Your task to perform on an android device: change notification settings in the gmail app Image 0: 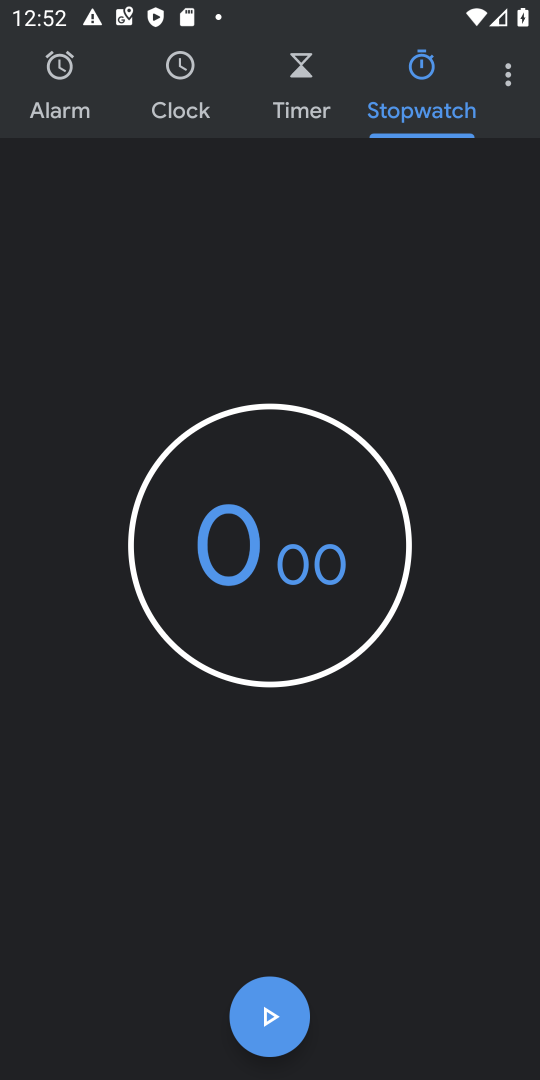
Step 0: press home button
Your task to perform on an android device: change notification settings in the gmail app Image 1: 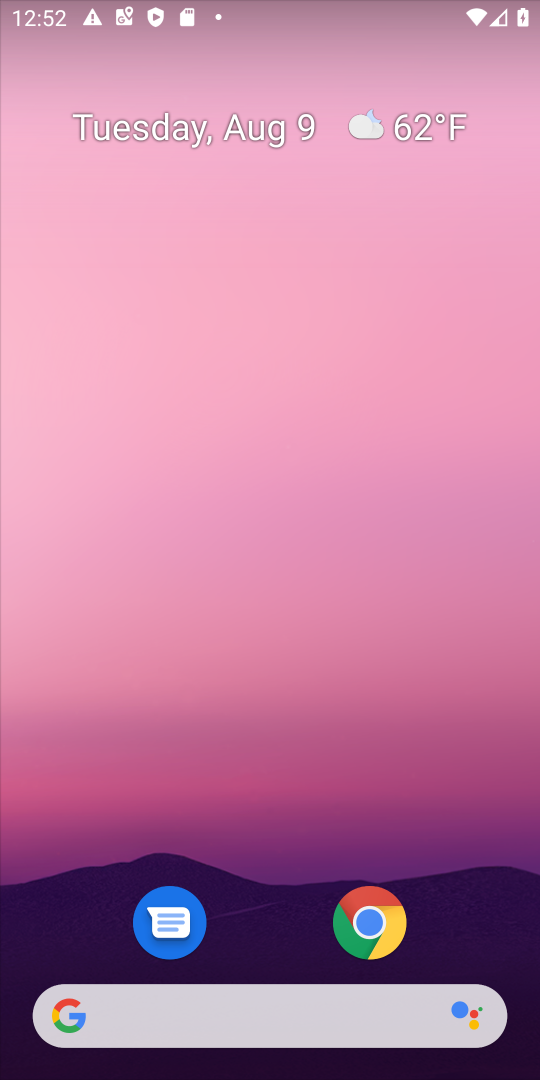
Step 1: drag from (311, 956) to (361, 65)
Your task to perform on an android device: change notification settings in the gmail app Image 2: 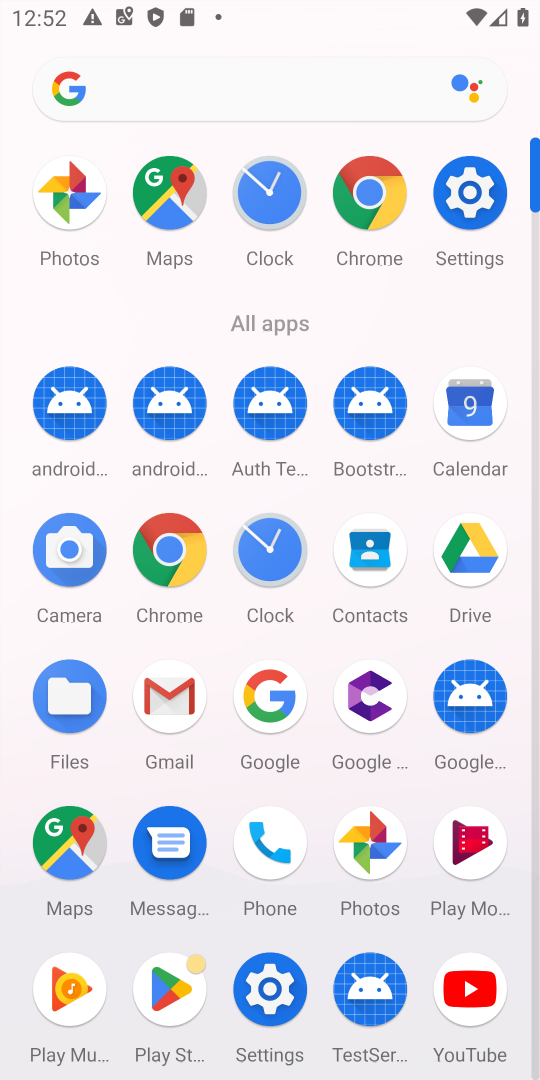
Step 2: click (154, 700)
Your task to perform on an android device: change notification settings in the gmail app Image 3: 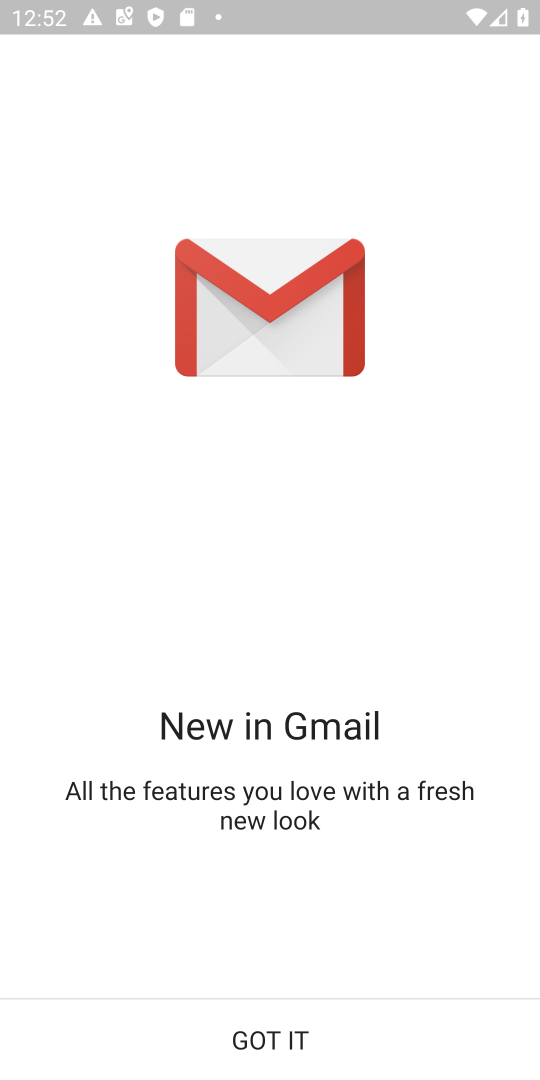
Step 3: click (329, 1036)
Your task to perform on an android device: change notification settings in the gmail app Image 4: 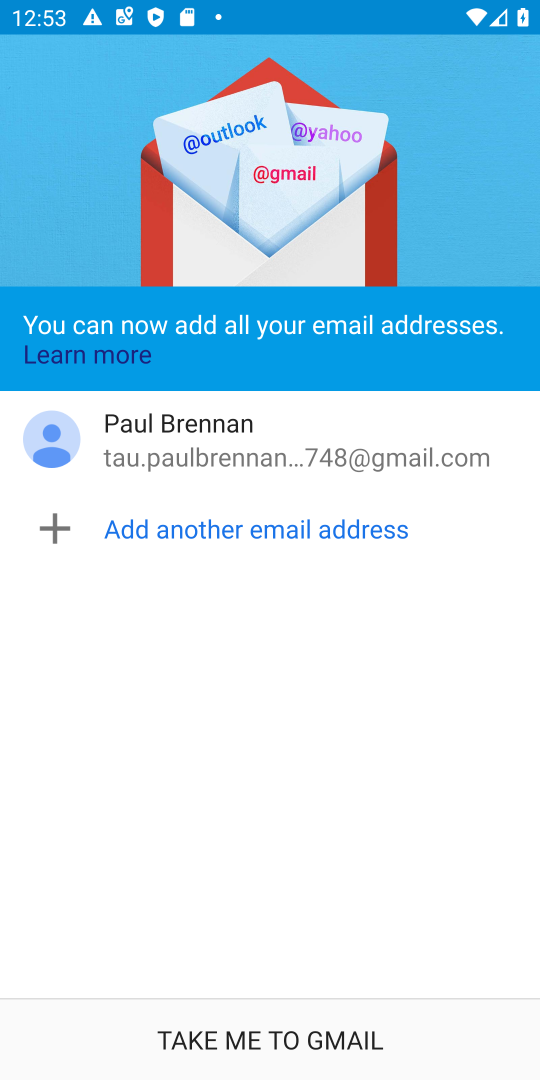
Step 4: click (318, 1002)
Your task to perform on an android device: change notification settings in the gmail app Image 5: 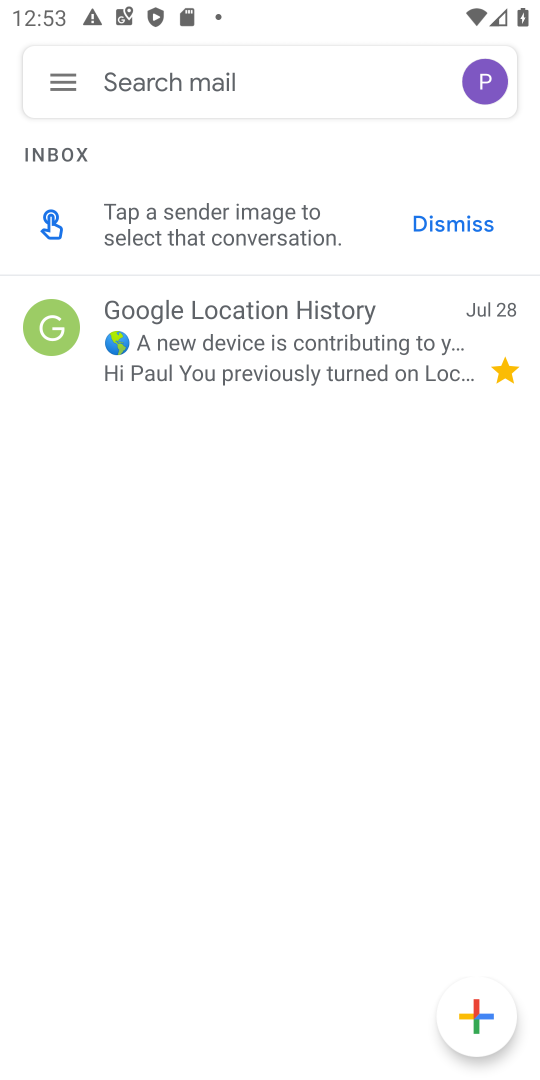
Step 5: click (50, 65)
Your task to perform on an android device: change notification settings in the gmail app Image 6: 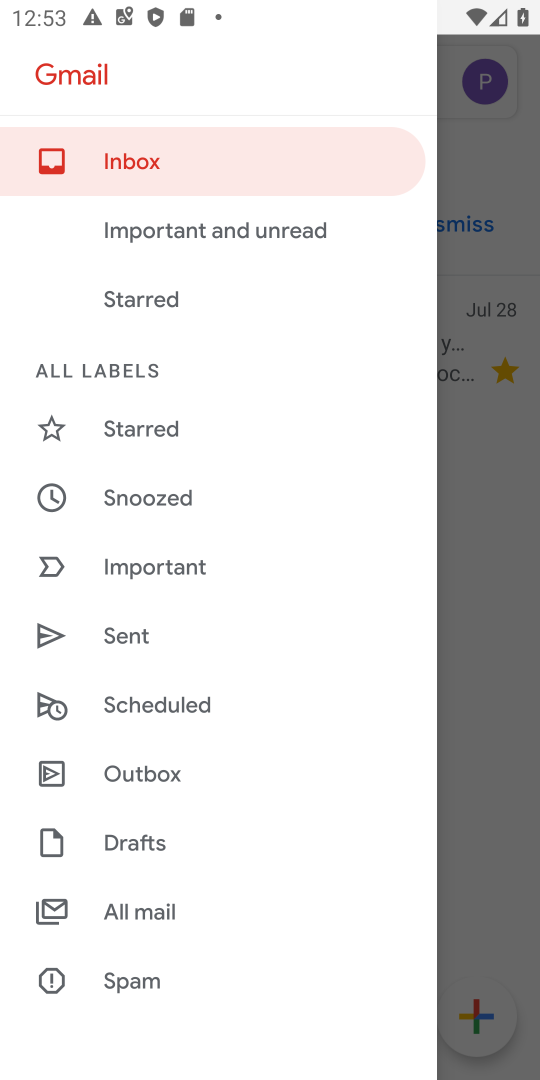
Step 6: drag from (210, 504) to (357, 49)
Your task to perform on an android device: change notification settings in the gmail app Image 7: 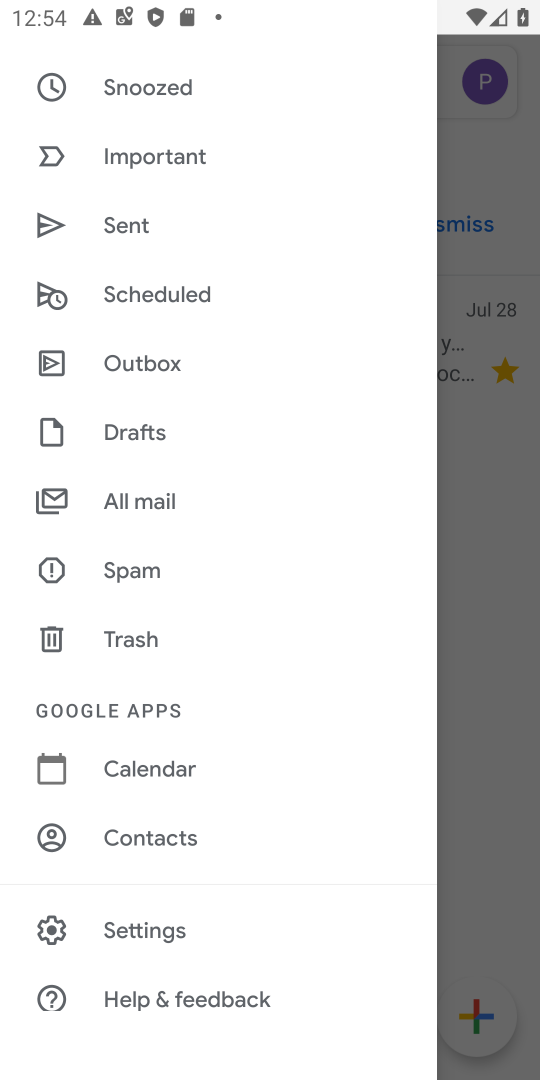
Step 7: click (162, 918)
Your task to perform on an android device: change notification settings in the gmail app Image 8: 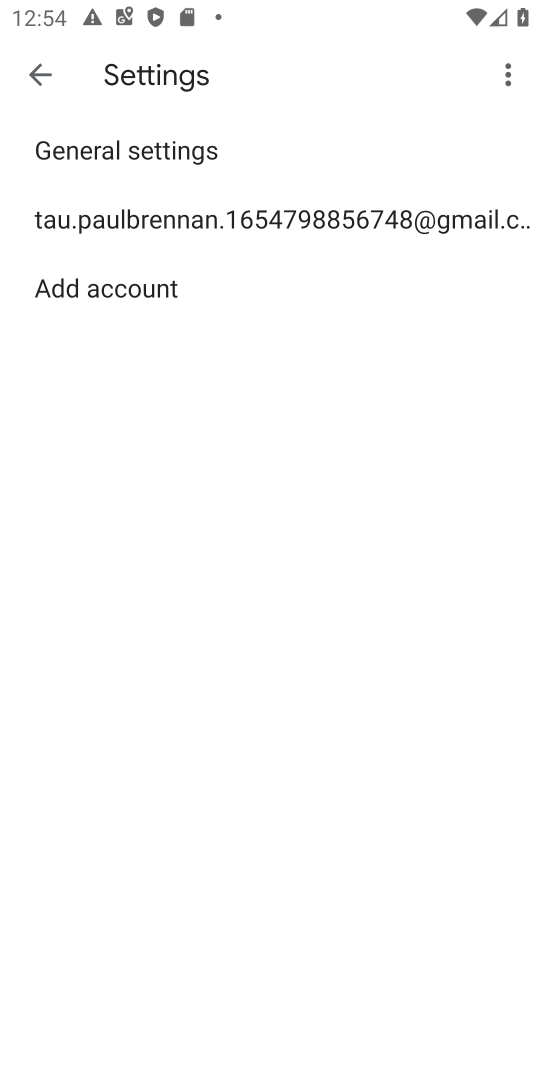
Step 8: click (141, 220)
Your task to perform on an android device: change notification settings in the gmail app Image 9: 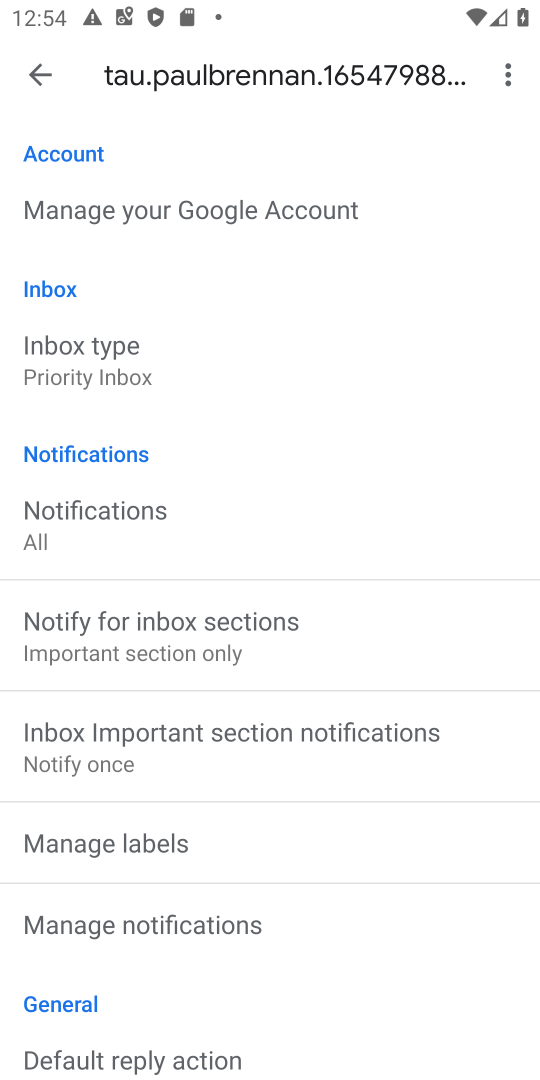
Step 9: click (38, 87)
Your task to perform on an android device: change notification settings in the gmail app Image 10: 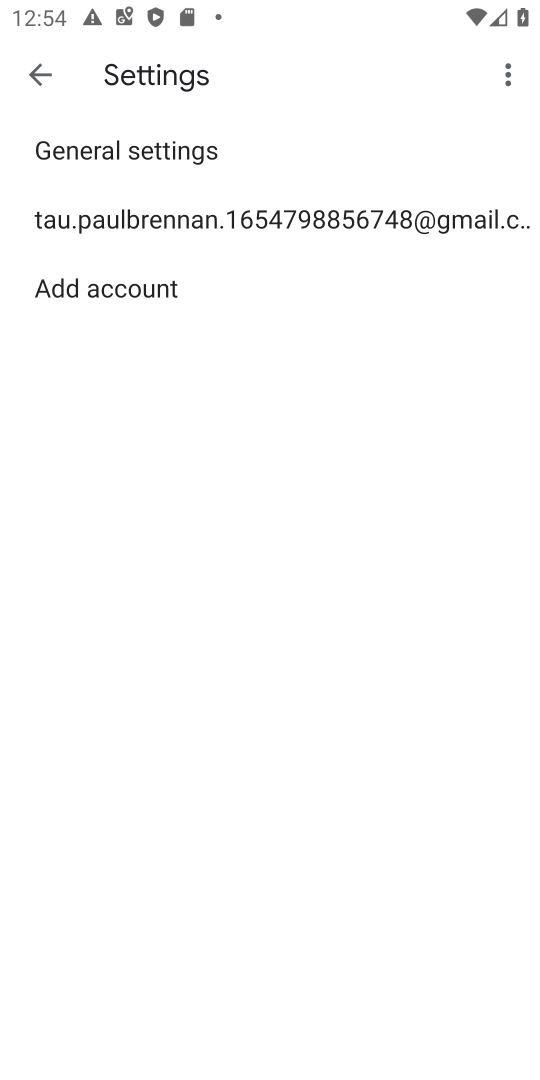
Step 10: click (57, 163)
Your task to perform on an android device: change notification settings in the gmail app Image 11: 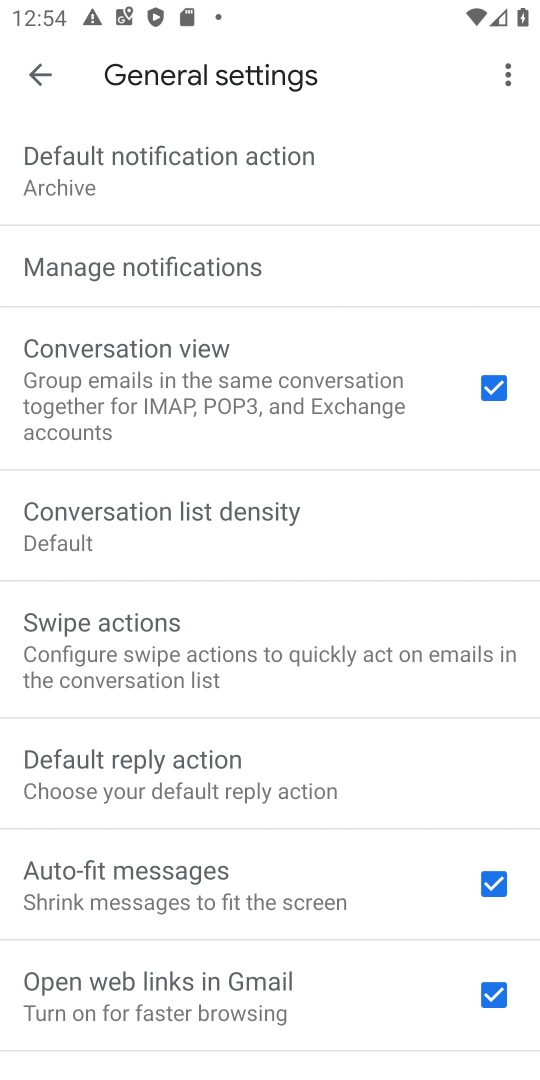
Step 11: click (85, 258)
Your task to perform on an android device: change notification settings in the gmail app Image 12: 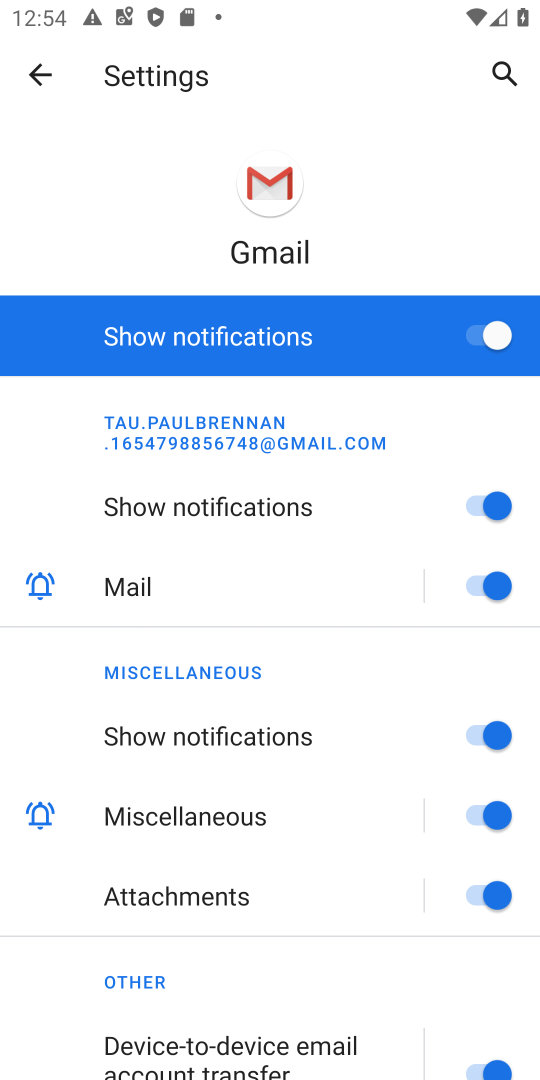
Step 12: click (478, 328)
Your task to perform on an android device: change notification settings in the gmail app Image 13: 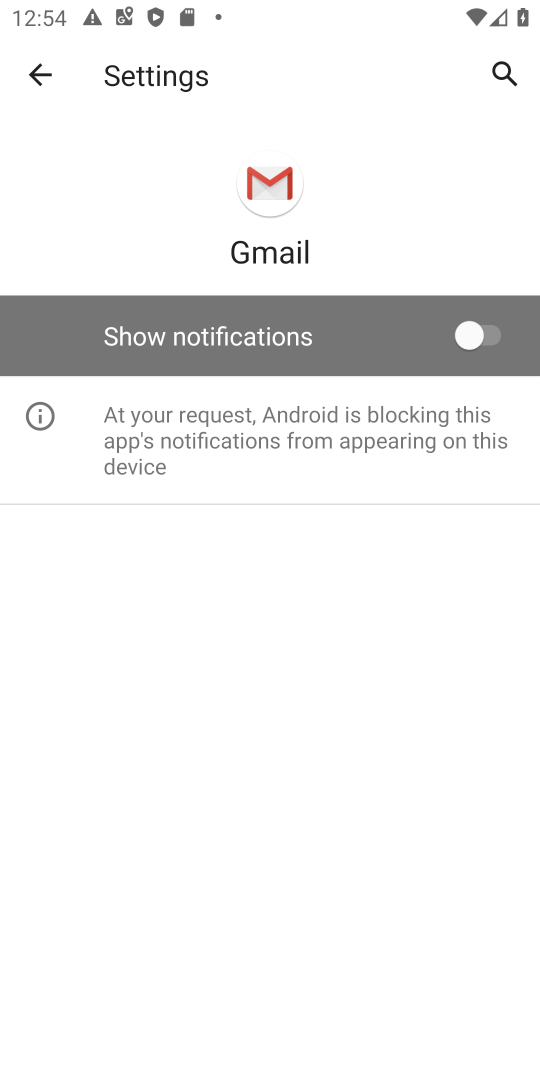
Step 13: task complete